Your task to perform on an android device: Show me recent news Image 0: 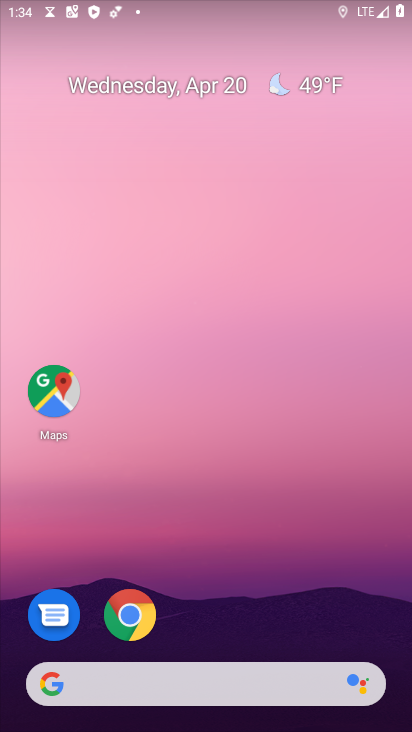
Step 0: drag from (37, 554) to (245, 245)
Your task to perform on an android device: Show me recent news Image 1: 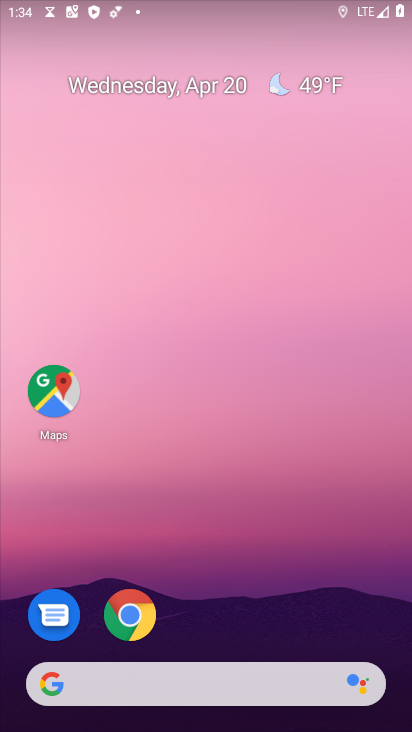
Step 1: drag from (134, 435) to (290, 210)
Your task to perform on an android device: Show me recent news Image 2: 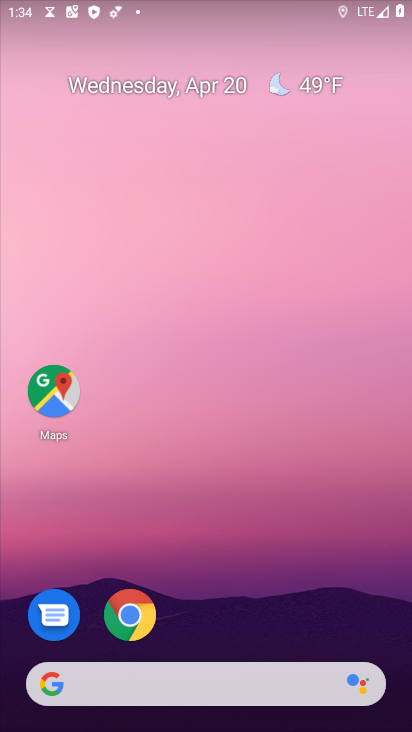
Step 2: drag from (131, 374) to (296, 114)
Your task to perform on an android device: Show me recent news Image 3: 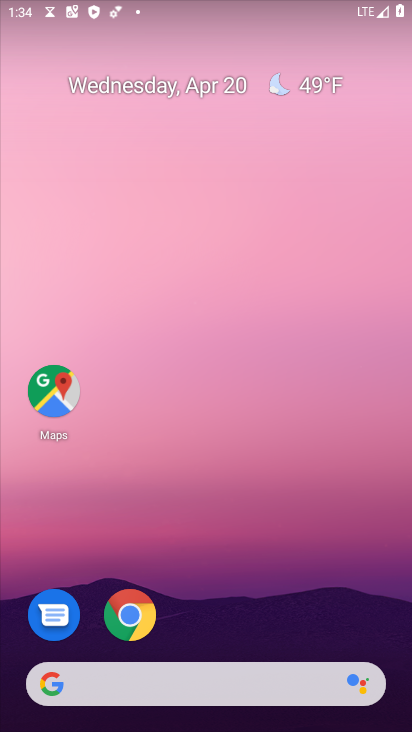
Step 3: drag from (102, 546) to (231, 224)
Your task to perform on an android device: Show me recent news Image 4: 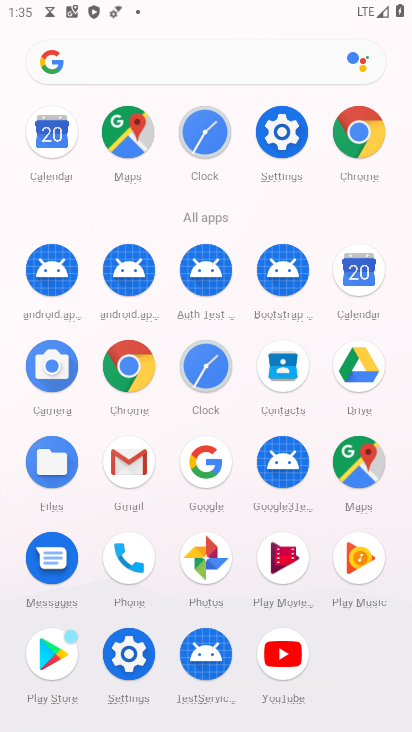
Step 4: click (342, 146)
Your task to perform on an android device: Show me recent news Image 5: 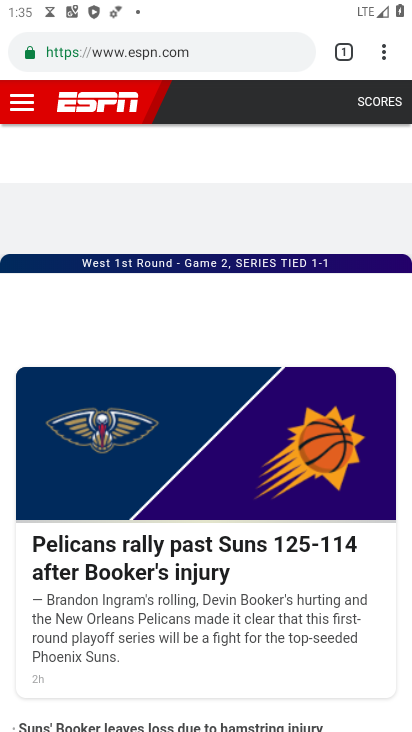
Step 5: task complete